Your task to perform on an android device: Show me productivity apps on the Play Store Image 0: 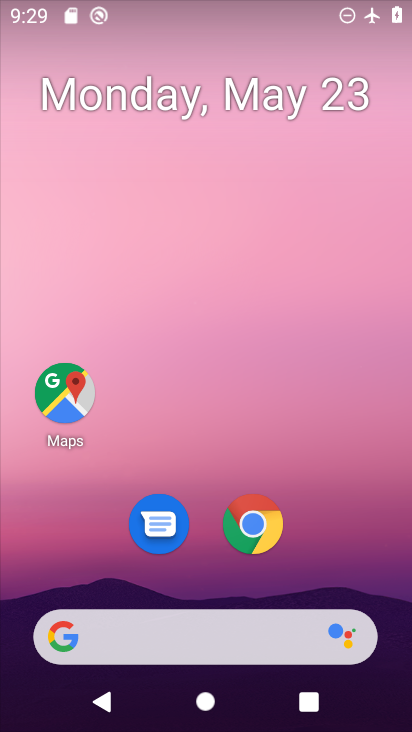
Step 0: drag from (227, 455) to (235, 30)
Your task to perform on an android device: Show me productivity apps on the Play Store Image 1: 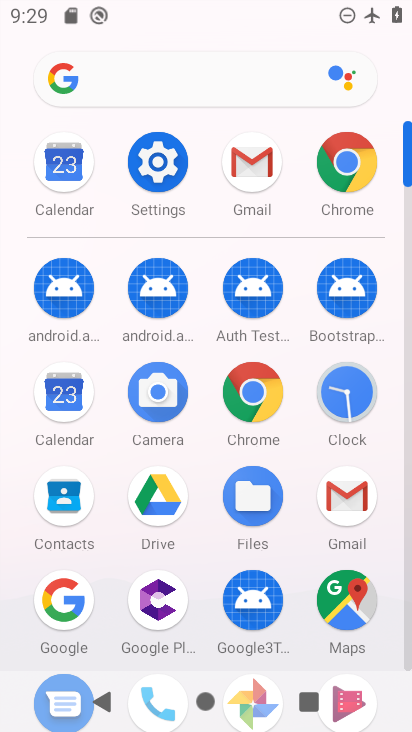
Step 1: drag from (196, 448) to (204, 191)
Your task to perform on an android device: Show me productivity apps on the Play Store Image 2: 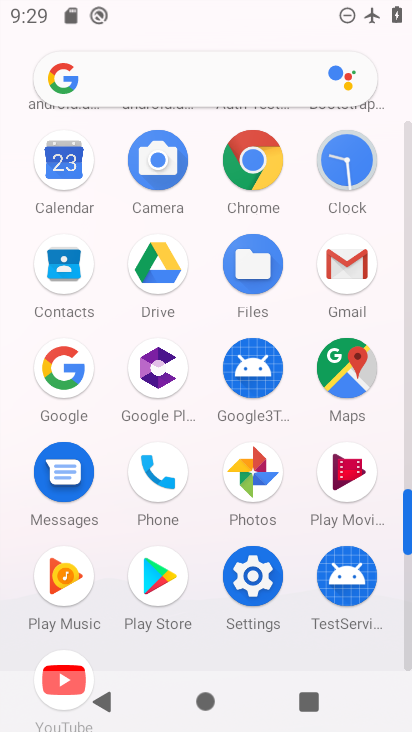
Step 2: click (162, 570)
Your task to perform on an android device: Show me productivity apps on the Play Store Image 3: 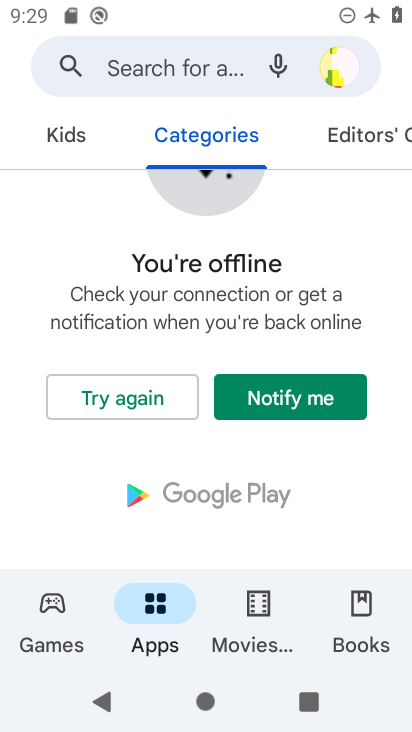
Step 3: click (153, 394)
Your task to perform on an android device: Show me productivity apps on the Play Store Image 4: 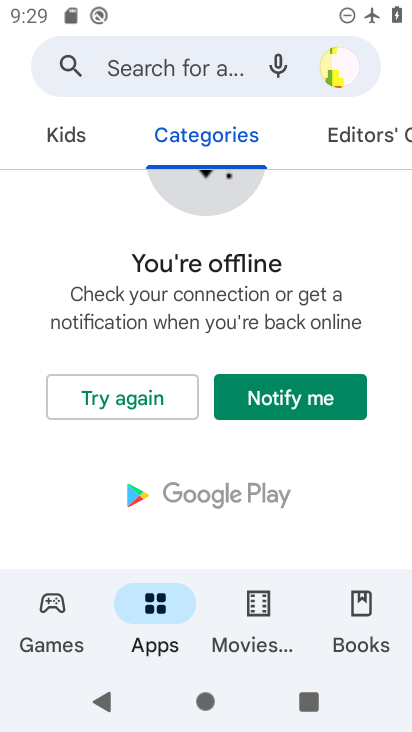
Step 4: task complete